Your task to perform on an android device: toggle pop-ups in chrome Image 0: 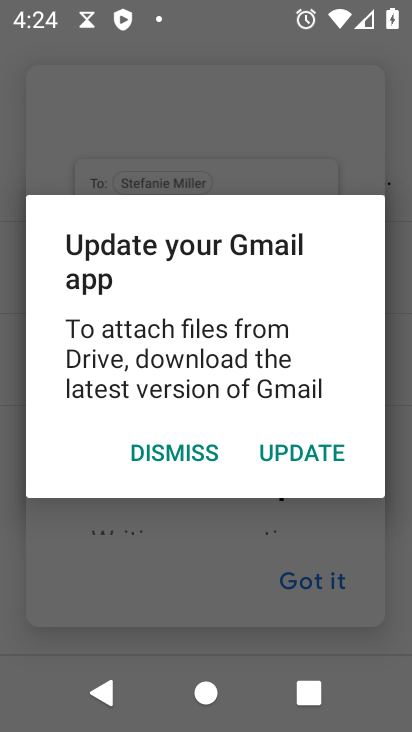
Step 0: press home button
Your task to perform on an android device: toggle pop-ups in chrome Image 1: 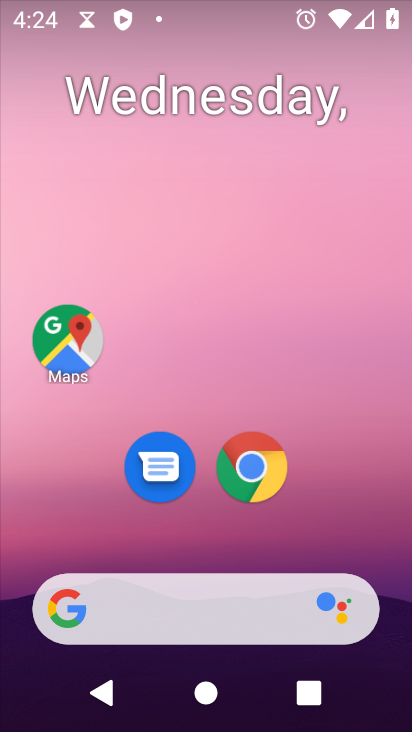
Step 1: drag from (375, 553) to (368, 45)
Your task to perform on an android device: toggle pop-ups in chrome Image 2: 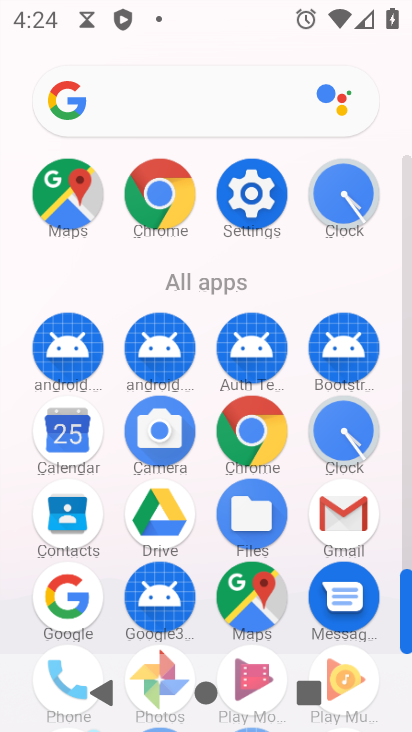
Step 2: click (179, 197)
Your task to perform on an android device: toggle pop-ups in chrome Image 3: 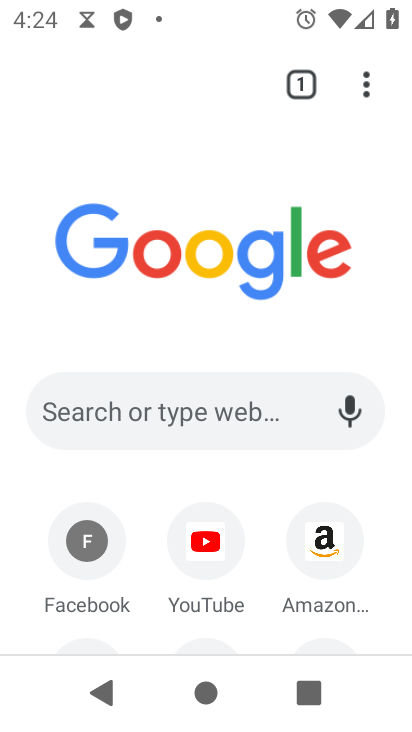
Step 3: drag from (372, 101) to (153, 553)
Your task to perform on an android device: toggle pop-ups in chrome Image 4: 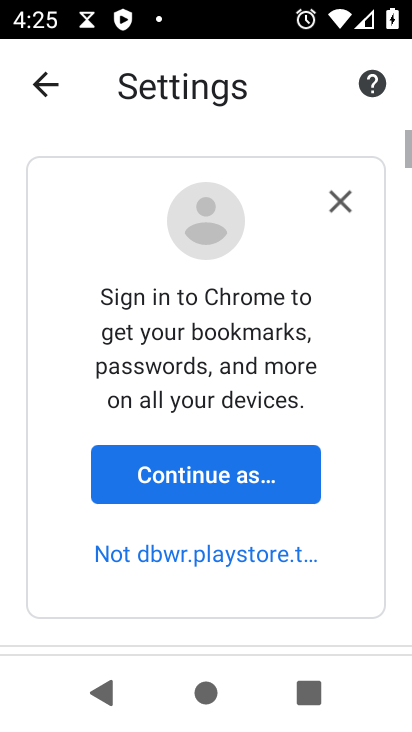
Step 4: drag from (153, 554) to (157, 152)
Your task to perform on an android device: toggle pop-ups in chrome Image 5: 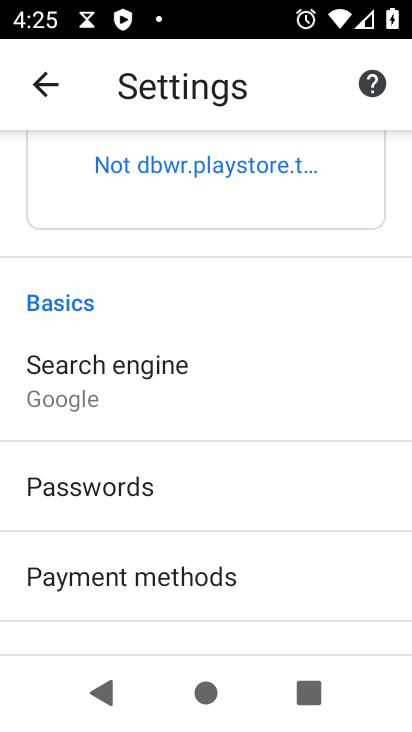
Step 5: drag from (197, 552) to (151, 170)
Your task to perform on an android device: toggle pop-ups in chrome Image 6: 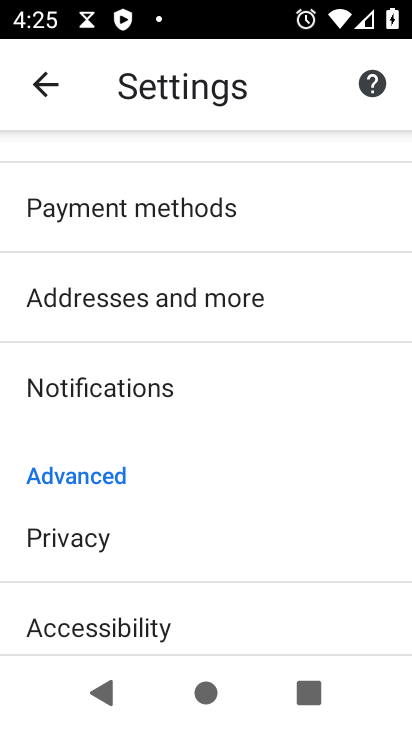
Step 6: drag from (212, 531) to (251, 166)
Your task to perform on an android device: toggle pop-ups in chrome Image 7: 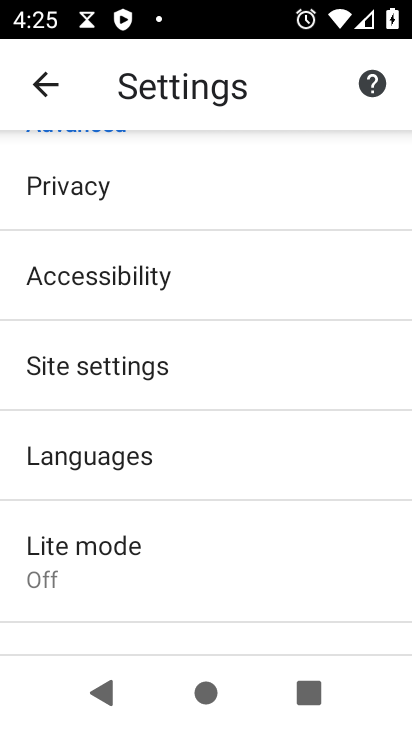
Step 7: click (143, 379)
Your task to perform on an android device: toggle pop-ups in chrome Image 8: 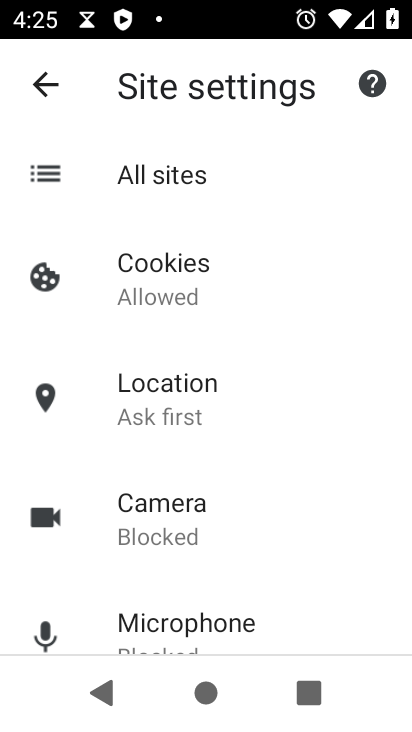
Step 8: drag from (204, 531) to (229, 170)
Your task to perform on an android device: toggle pop-ups in chrome Image 9: 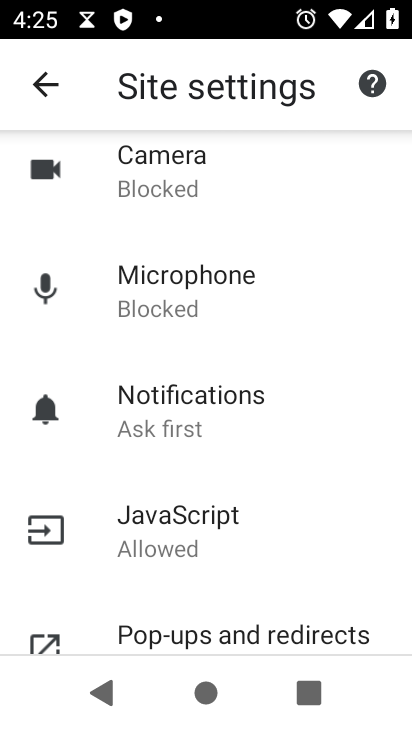
Step 9: drag from (263, 569) to (340, 196)
Your task to perform on an android device: toggle pop-ups in chrome Image 10: 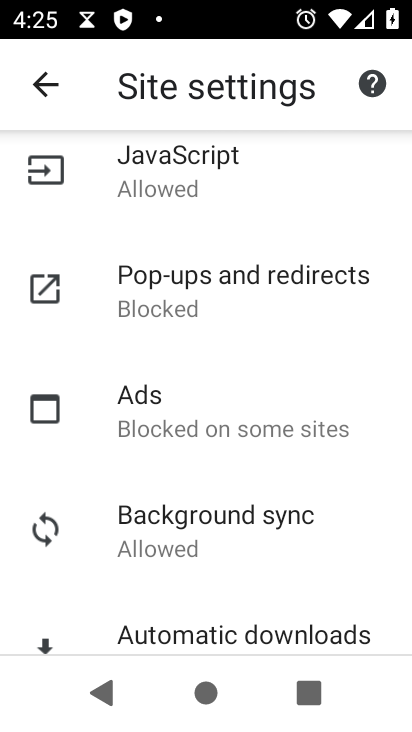
Step 10: click (280, 275)
Your task to perform on an android device: toggle pop-ups in chrome Image 11: 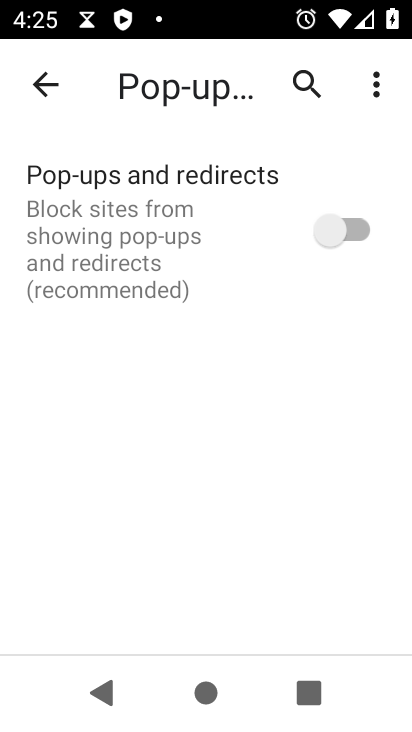
Step 11: click (324, 236)
Your task to perform on an android device: toggle pop-ups in chrome Image 12: 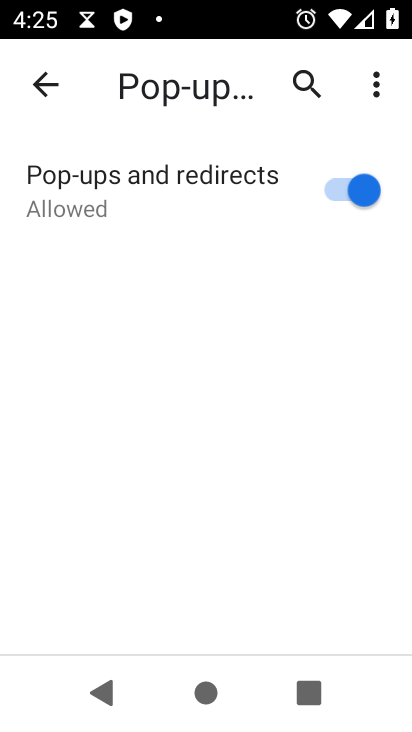
Step 12: task complete